Your task to perform on an android device: change text size in settings app Image 0: 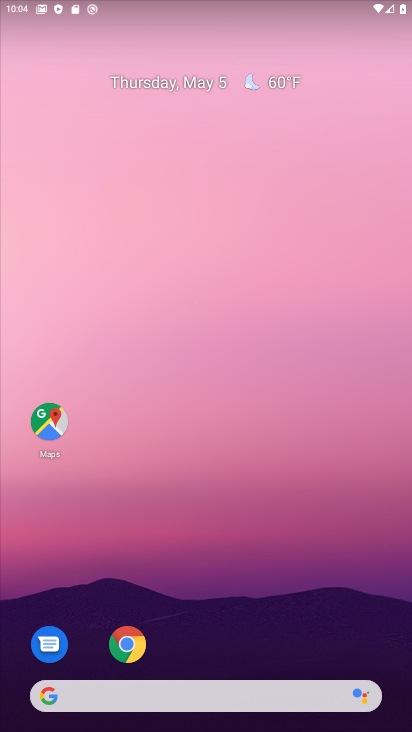
Step 0: drag from (366, 625) to (389, 75)
Your task to perform on an android device: change text size in settings app Image 1: 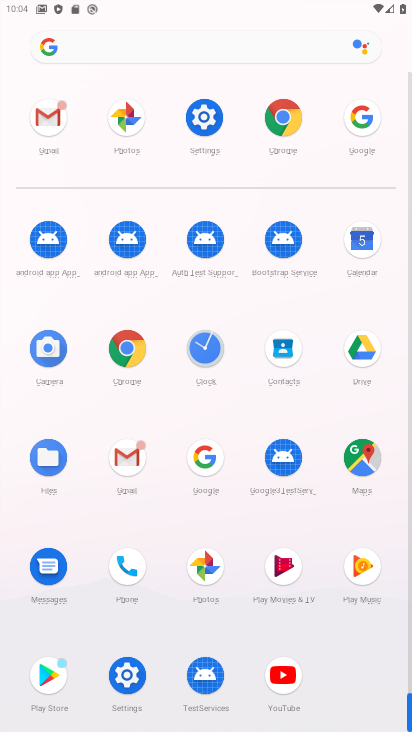
Step 1: click (206, 114)
Your task to perform on an android device: change text size in settings app Image 2: 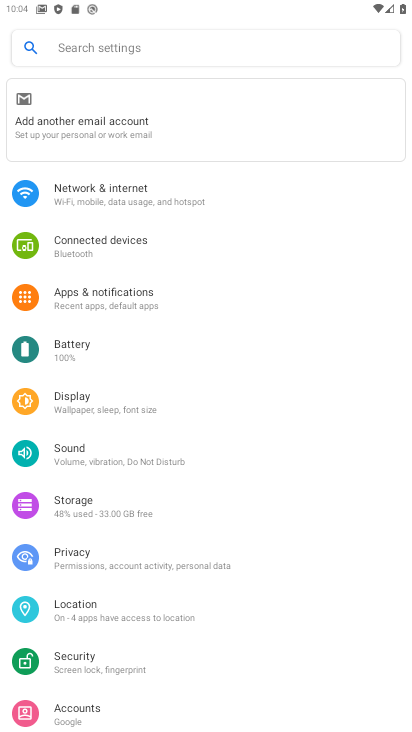
Step 2: drag from (283, 610) to (306, 346)
Your task to perform on an android device: change text size in settings app Image 3: 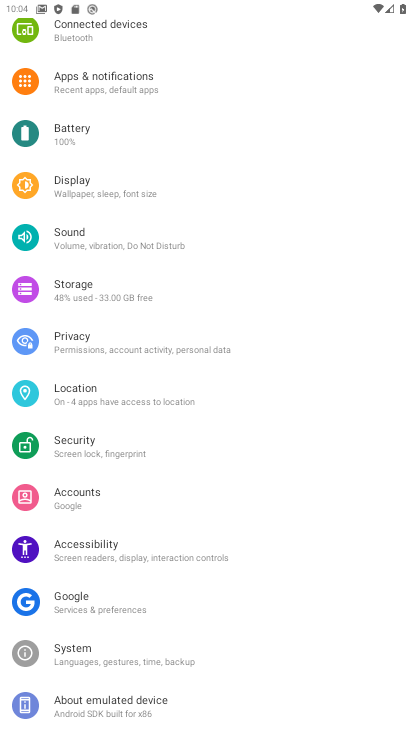
Step 3: drag from (251, 610) to (272, 317)
Your task to perform on an android device: change text size in settings app Image 4: 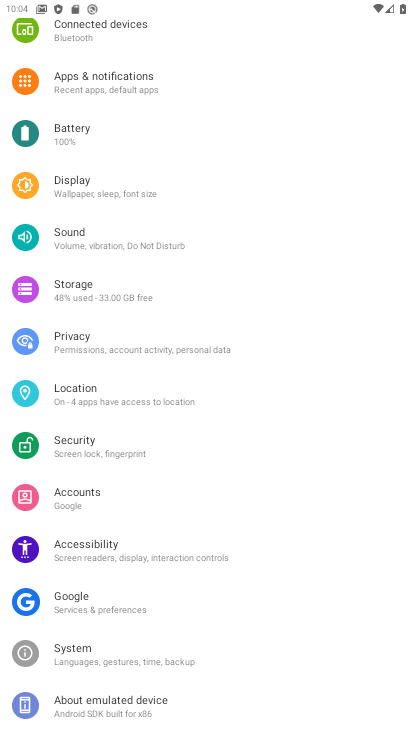
Step 4: click (93, 180)
Your task to perform on an android device: change text size in settings app Image 5: 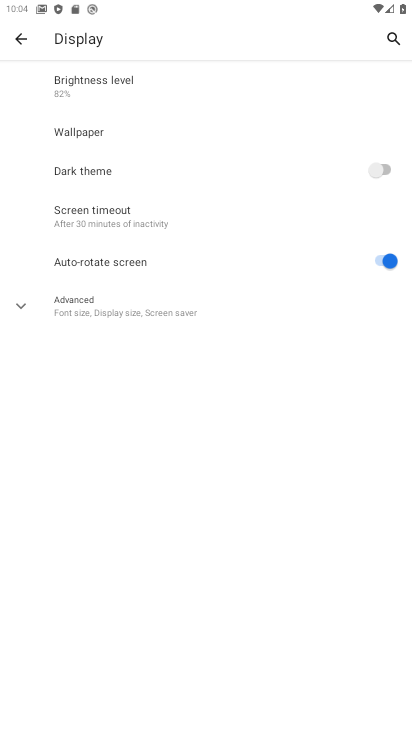
Step 5: click (61, 301)
Your task to perform on an android device: change text size in settings app Image 6: 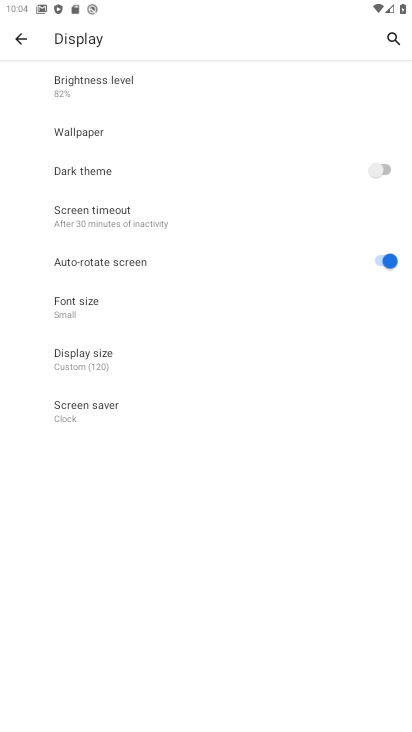
Step 6: click (85, 300)
Your task to perform on an android device: change text size in settings app Image 7: 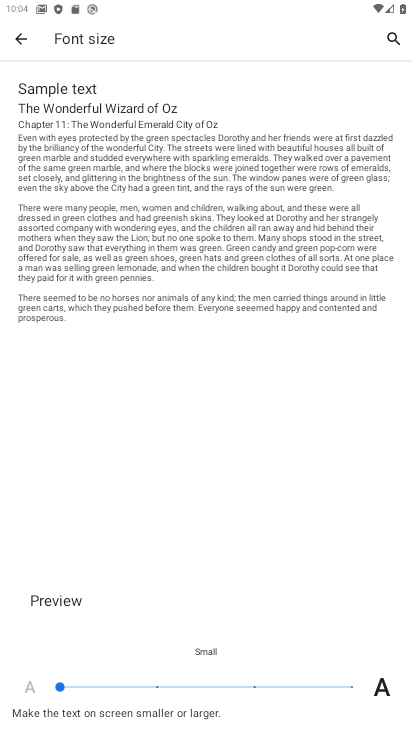
Step 7: click (153, 686)
Your task to perform on an android device: change text size in settings app Image 8: 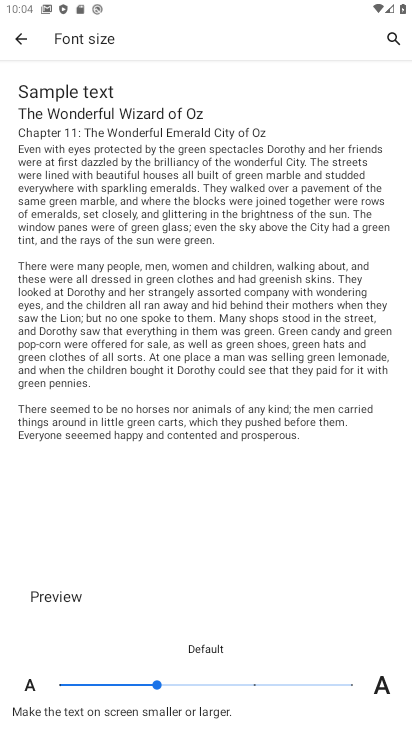
Step 8: task complete